Your task to perform on an android device: check google app version Image 0: 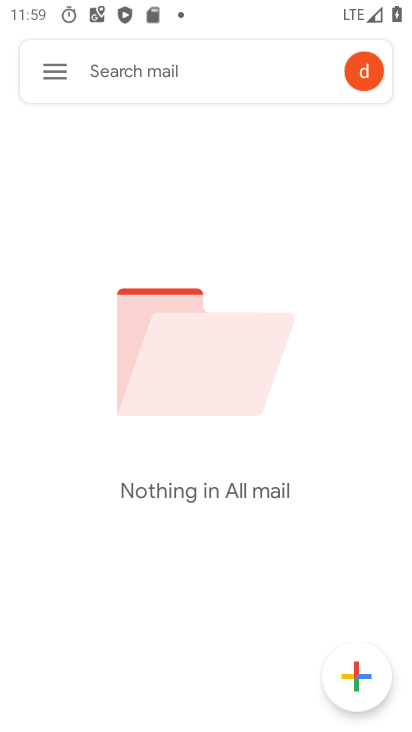
Step 0: press home button
Your task to perform on an android device: check google app version Image 1: 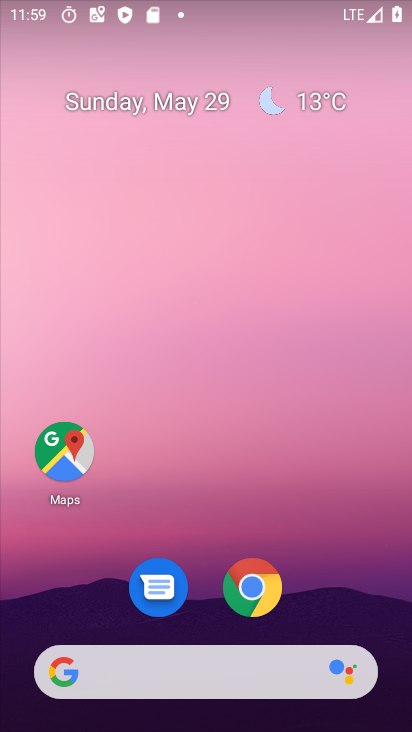
Step 1: drag from (358, 600) to (311, 107)
Your task to perform on an android device: check google app version Image 2: 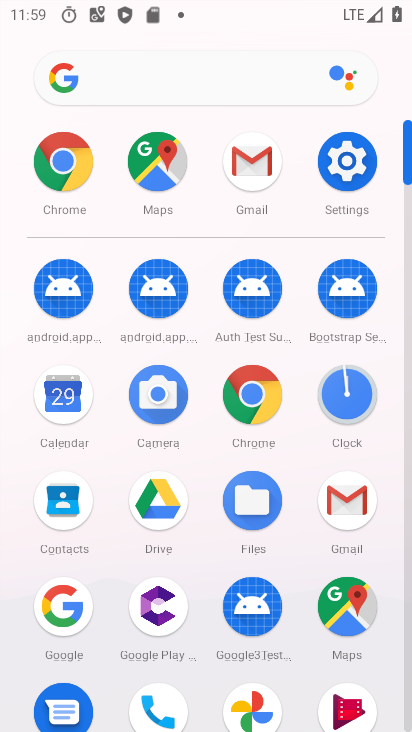
Step 2: click (60, 620)
Your task to perform on an android device: check google app version Image 3: 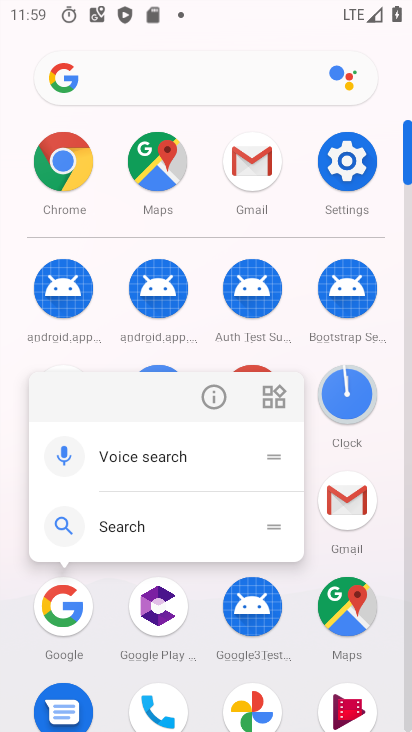
Step 3: click (224, 395)
Your task to perform on an android device: check google app version Image 4: 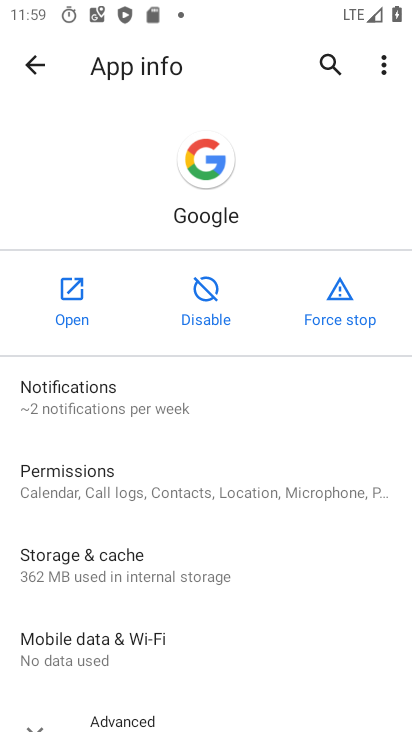
Step 4: drag from (222, 590) to (293, 206)
Your task to perform on an android device: check google app version Image 5: 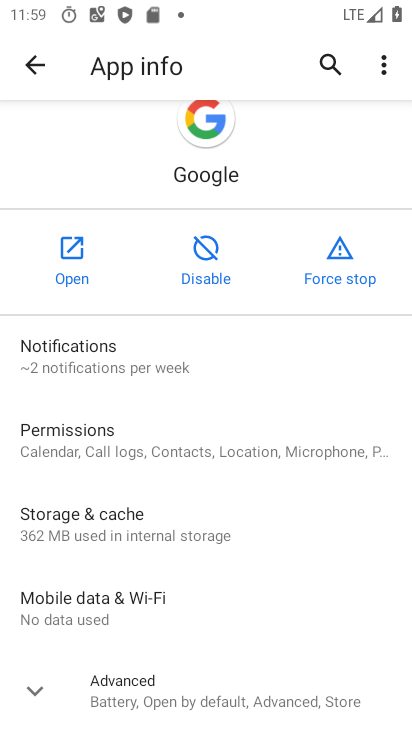
Step 5: click (196, 688)
Your task to perform on an android device: check google app version Image 6: 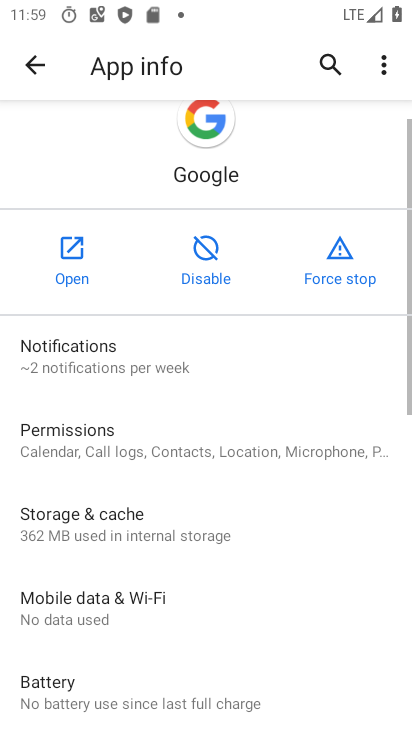
Step 6: task complete